Your task to perform on an android device: What's the weather? Image 0: 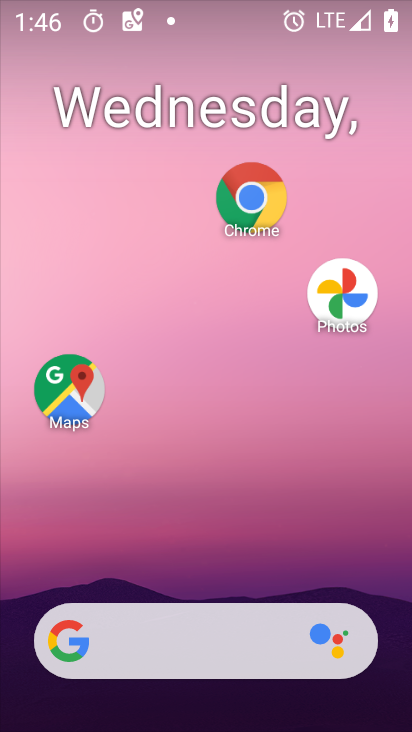
Step 0: drag from (268, 623) to (350, 10)
Your task to perform on an android device: What's the weather? Image 1: 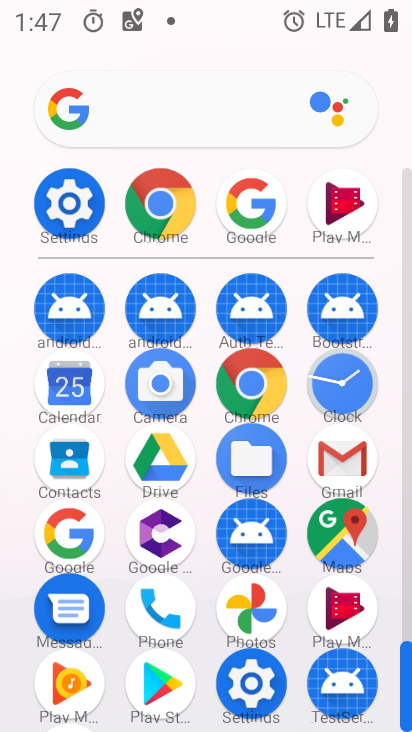
Step 1: drag from (157, 560) to (167, 357)
Your task to perform on an android device: What's the weather? Image 2: 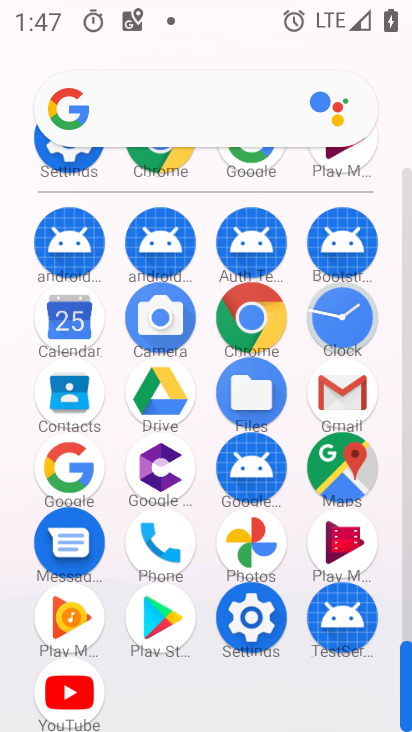
Step 2: click (90, 470)
Your task to perform on an android device: What's the weather? Image 3: 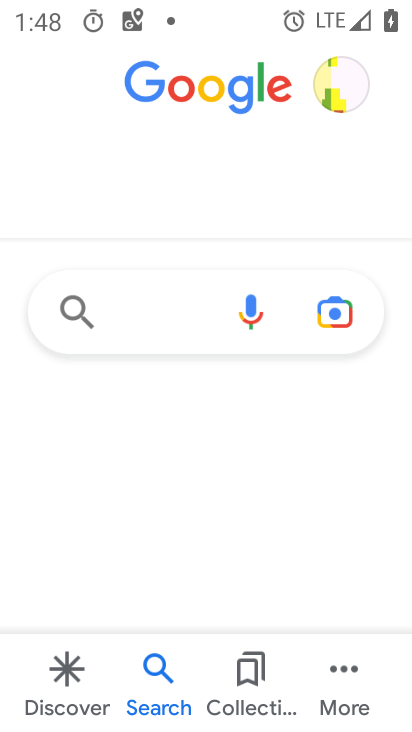
Step 3: click (153, 285)
Your task to perform on an android device: What's the weather? Image 4: 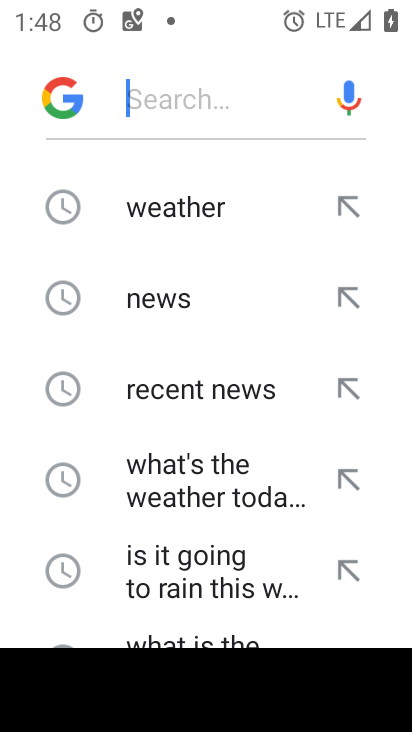
Step 4: click (206, 210)
Your task to perform on an android device: What's the weather? Image 5: 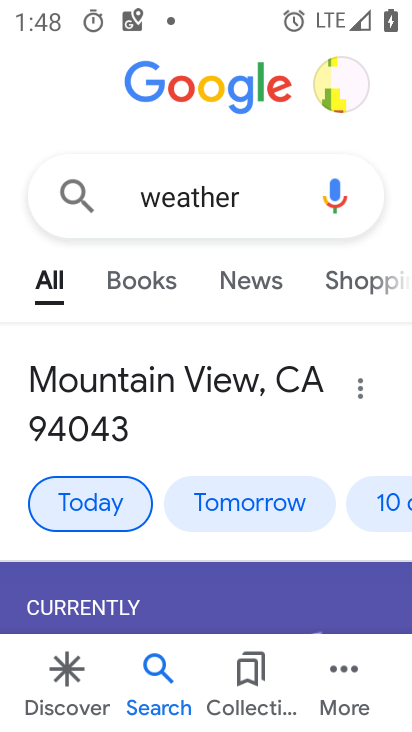
Step 5: task complete